Your task to perform on an android device: turn off javascript in the chrome app Image 0: 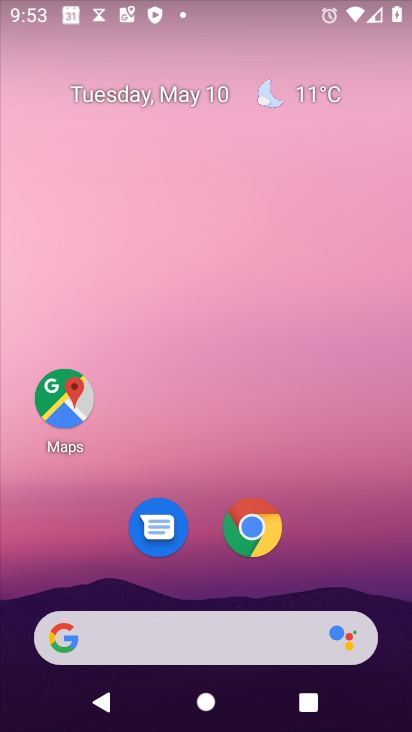
Step 0: click (264, 527)
Your task to perform on an android device: turn off javascript in the chrome app Image 1: 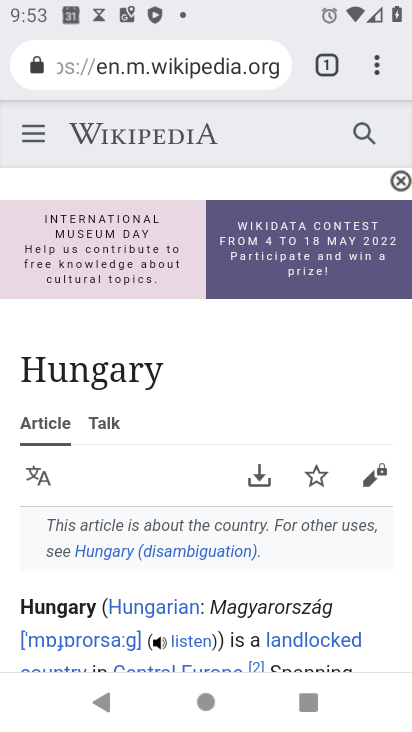
Step 1: click (378, 78)
Your task to perform on an android device: turn off javascript in the chrome app Image 2: 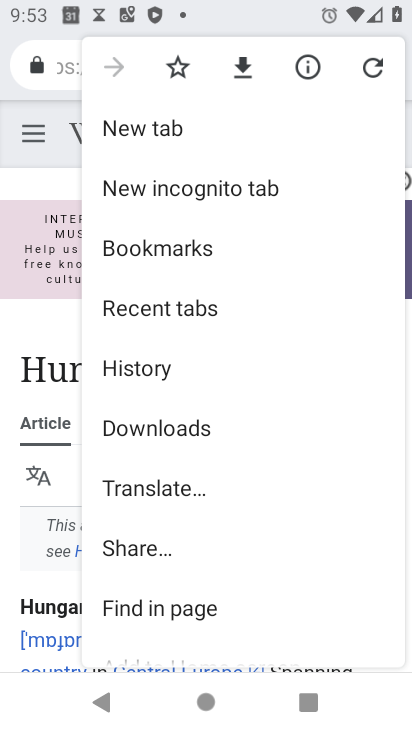
Step 2: drag from (255, 646) to (235, 269)
Your task to perform on an android device: turn off javascript in the chrome app Image 3: 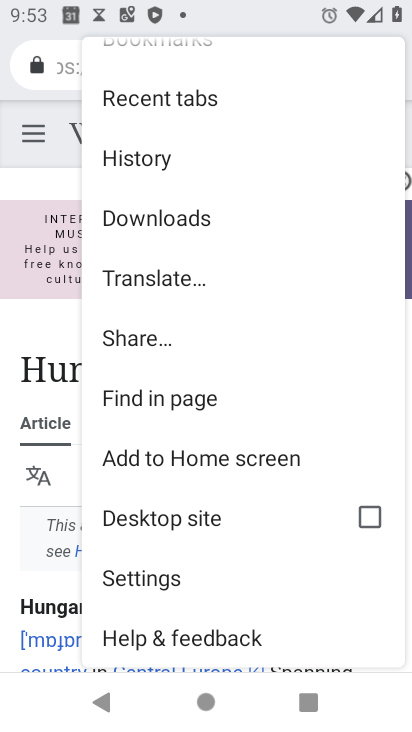
Step 3: click (230, 572)
Your task to perform on an android device: turn off javascript in the chrome app Image 4: 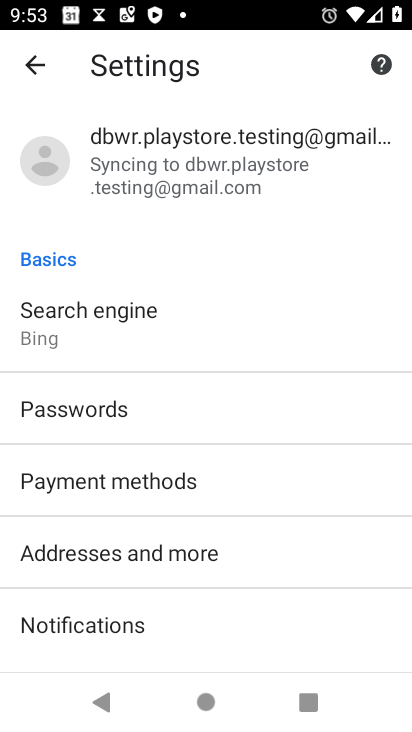
Step 4: drag from (234, 575) to (212, 233)
Your task to perform on an android device: turn off javascript in the chrome app Image 5: 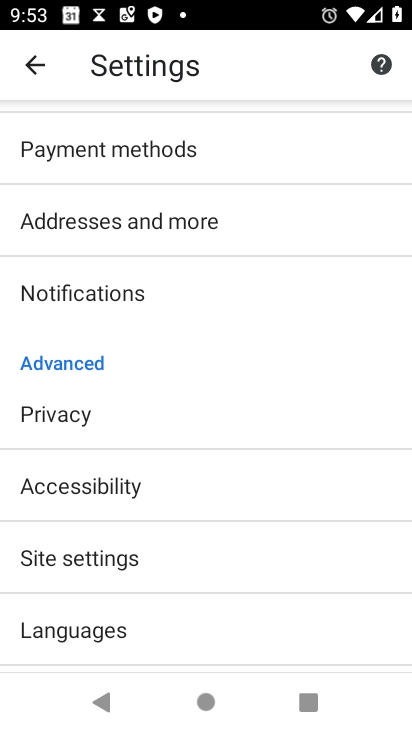
Step 5: click (189, 550)
Your task to perform on an android device: turn off javascript in the chrome app Image 6: 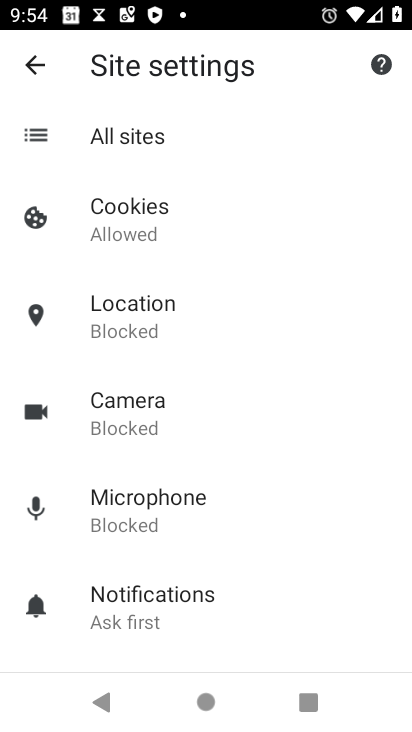
Step 6: drag from (236, 554) to (187, 311)
Your task to perform on an android device: turn off javascript in the chrome app Image 7: 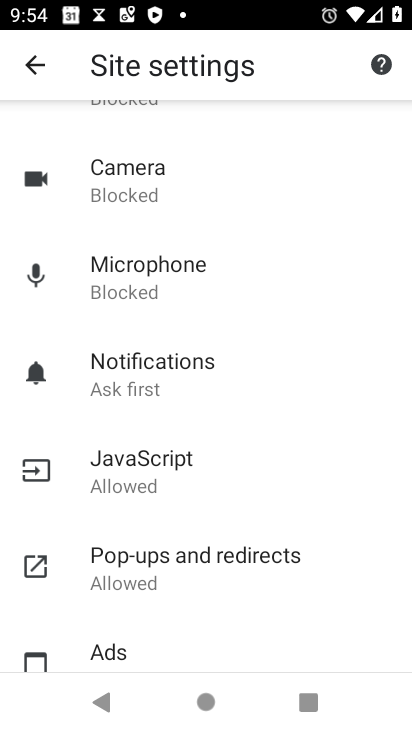
Step 7: click (221, 472)
Your task to perform on an android device: turn off javascript in the chrome app Image 8: 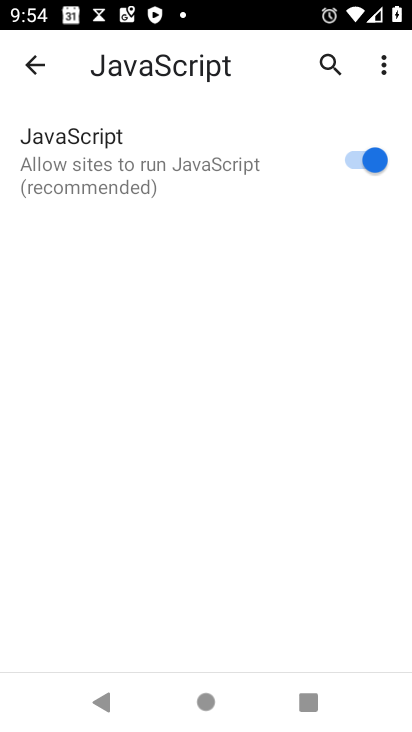
Step 8: click (365, 155)
Your task to perform on an android device: turn off javascript in the chrome app Image 9: 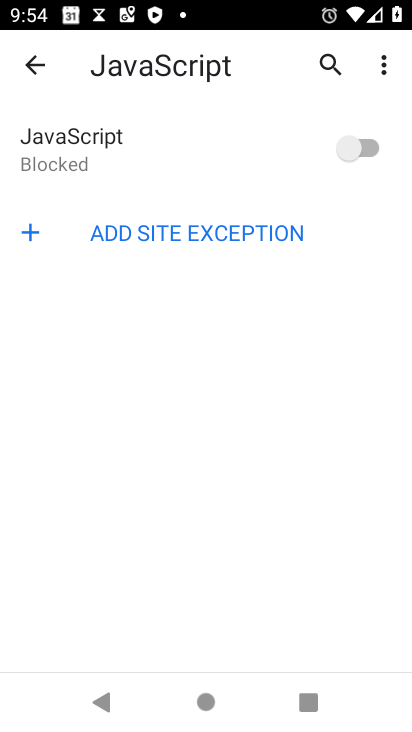
Step 9: task complete